Your task to perform on an android device: Open settings on Google Maps Image 0: 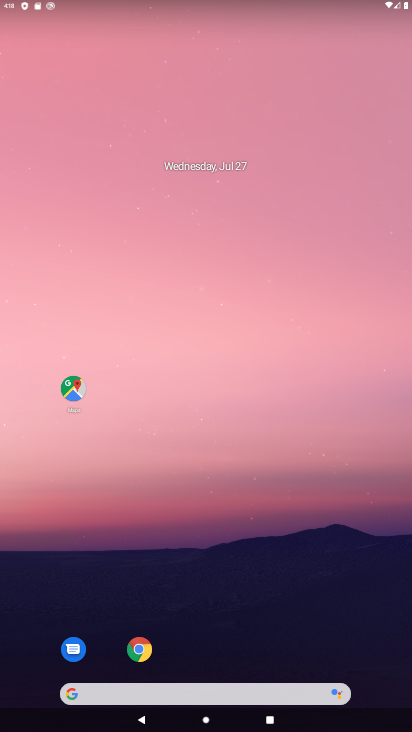
Step 0: click (66, 383)
Your task to perform on an android device: Open settings on Google Maps Image 1: 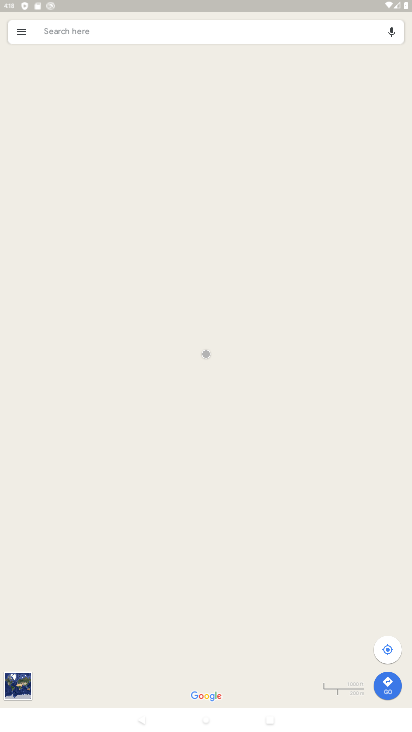
Step 1: click (21, 31)
Your task to perform on an android device: Open settings on Google Maps Image 2: 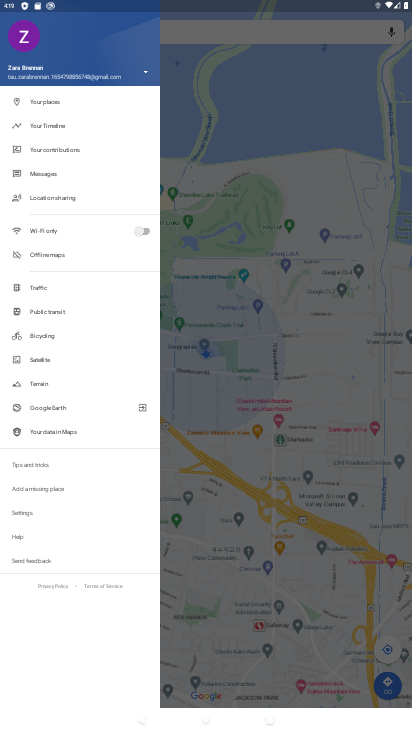
Step 2: click (17, 512)
Your task to perform on an android device: Open settings on Google Maps Image 3: 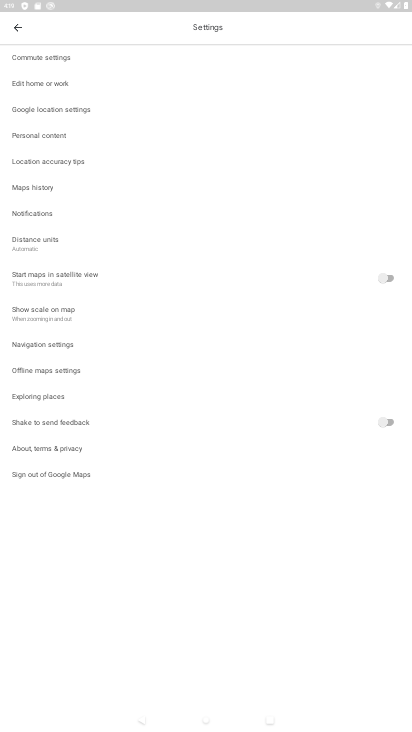
Step 3: task complete